Your task to perform on an android device: install app "YouTube Kids" Image 0: 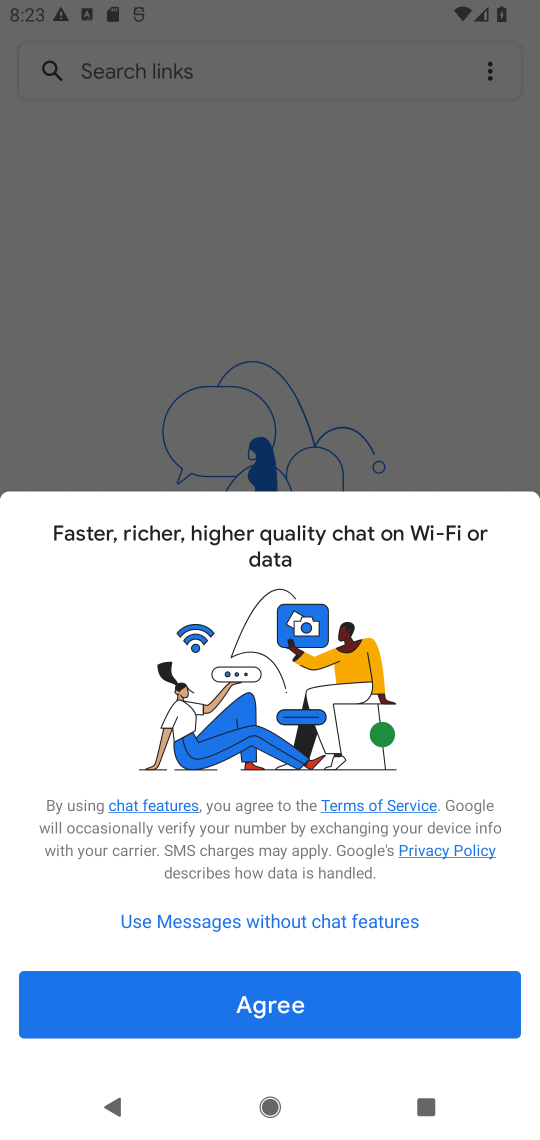
Step 0: press home button
Your task to perform on an android device: install app "YouTube Kids" Image 1: 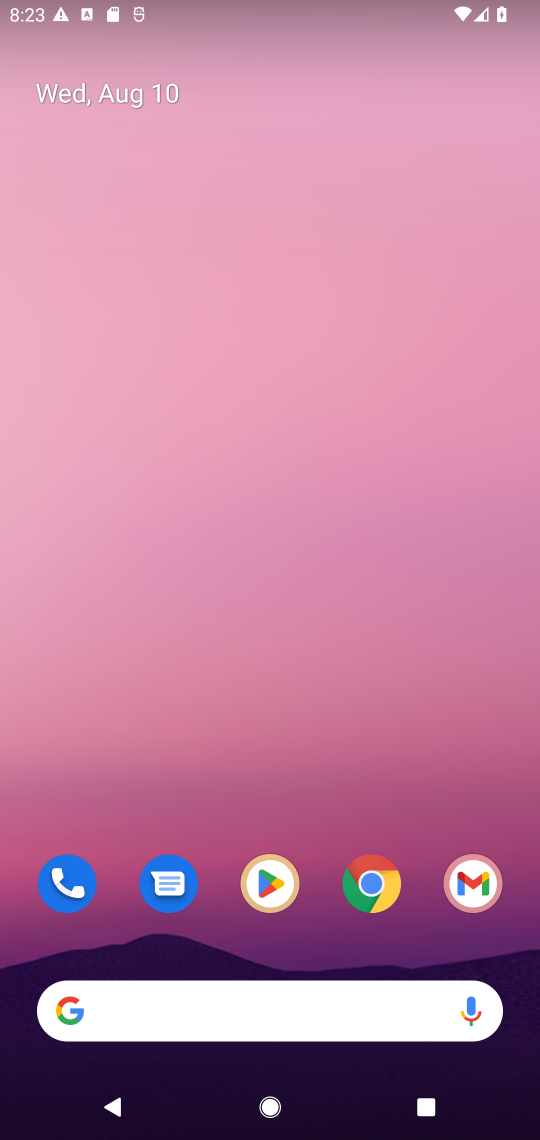
Step 1: drag from (300, 926) to (290, 33)
Your task to perform on an android device: install app "YouTube Kids" Image 2: 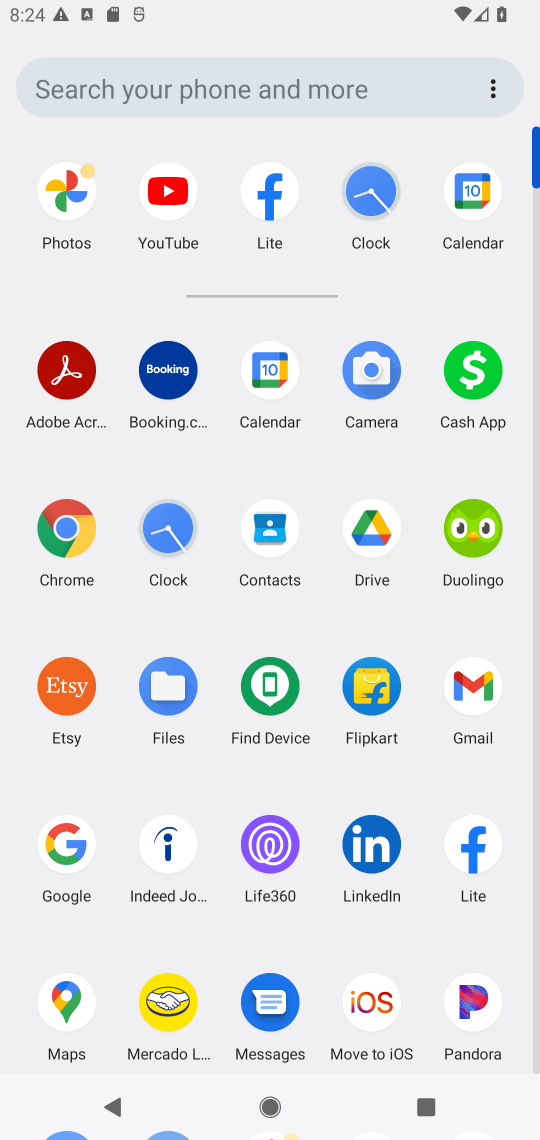
Step 2: drag from (401, 940) to (402, 330)
Your task to perform on an android device: install app "YouTube Kids" Image 3: 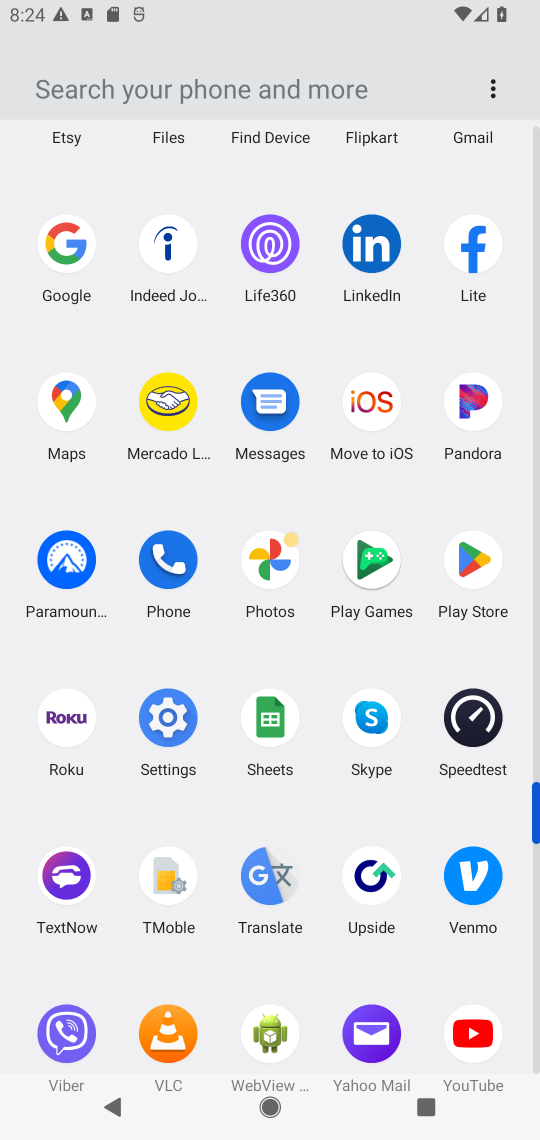
Step 3: press home button
Your task to perform on an android device: install app "YouTube Kids" Image 4: 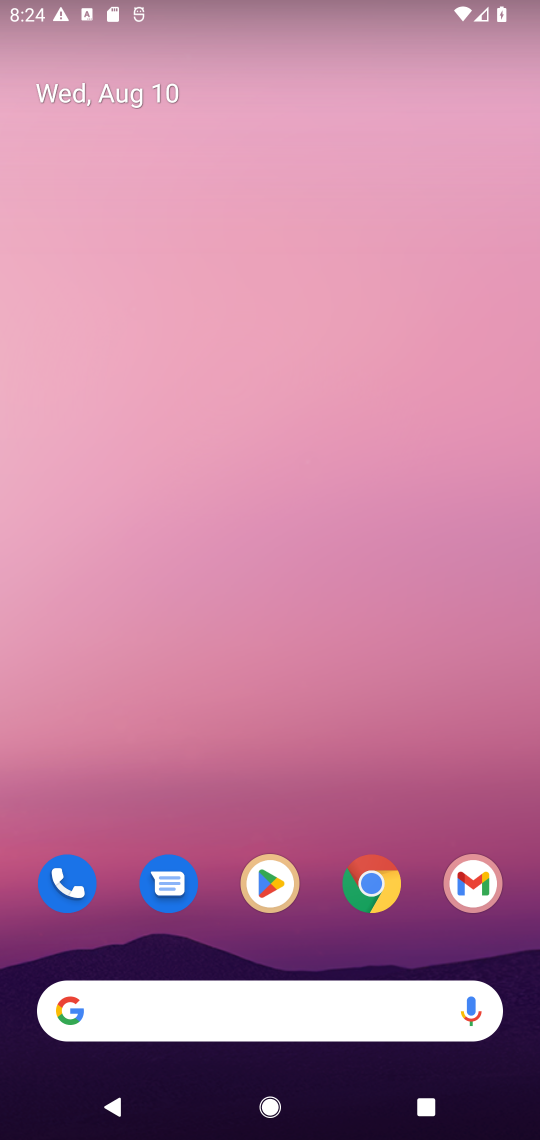
Step 4: drag from (310, 953) to (273, 99)
Your task to perform on an android device: install app "YouTube Kids" Image 5: 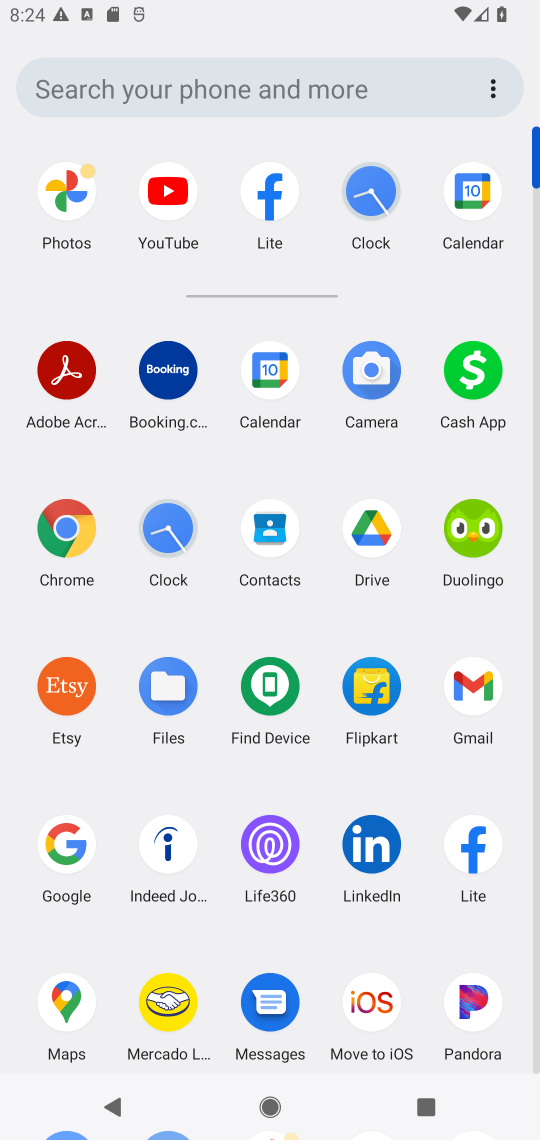
Step 5: drag from (281, 896) to (269, 392)
Your task to perform on an android device: install app "YouTube Kids" Image 6: 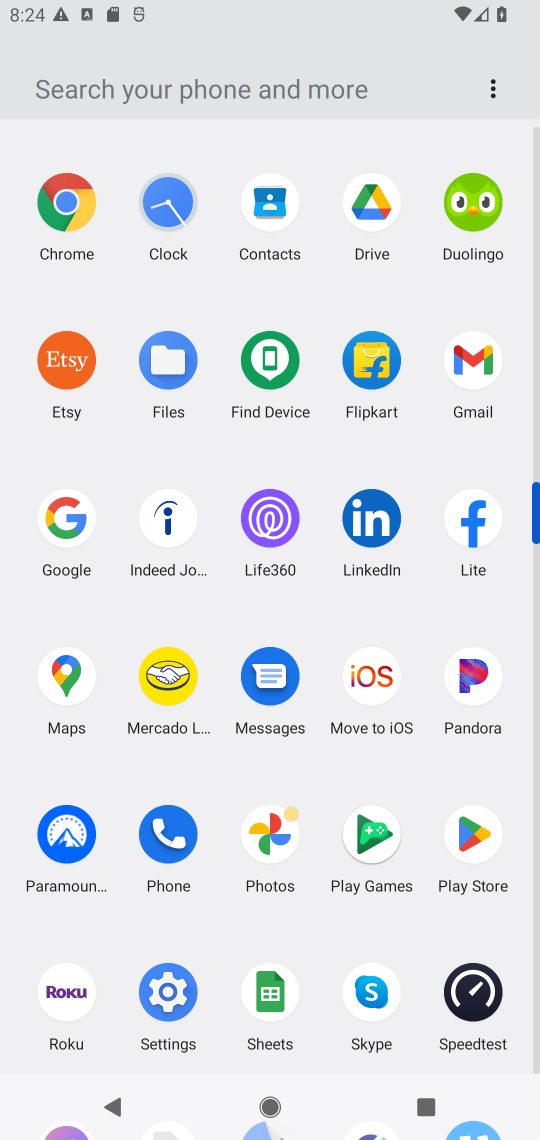
Step 6: click (466, 831)
Your task to perform on an android device: install app "YouTube Kids" Image 7: 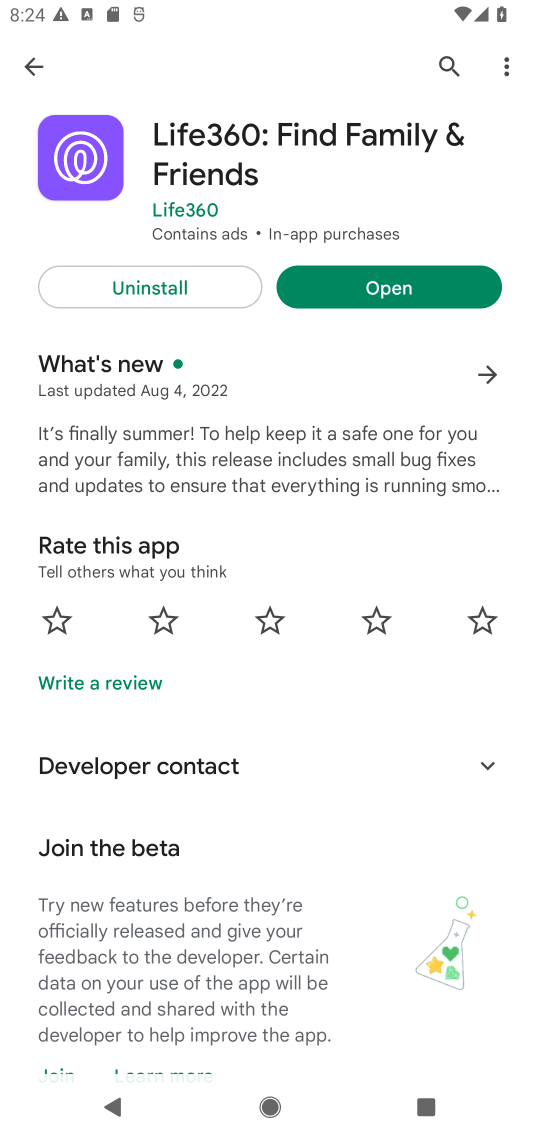
Step 7: click (442, 65)
Your task to perform on an android device: install app "YouTube Kids" Image 8: 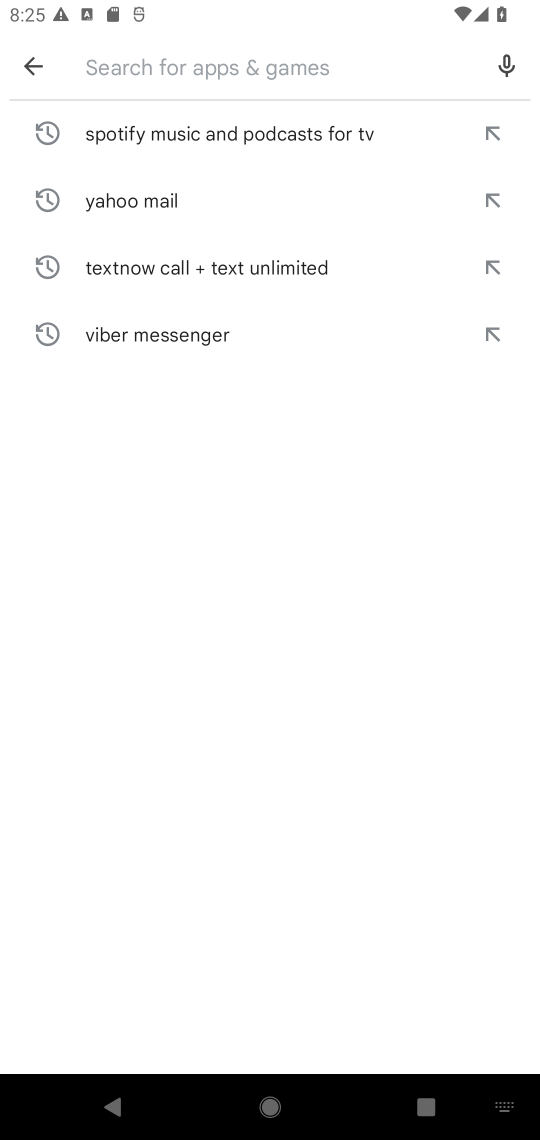
Step 8: type "YouTube Kids"
Your task to perform on an android device: install app "YouTube Kids" Image 9: 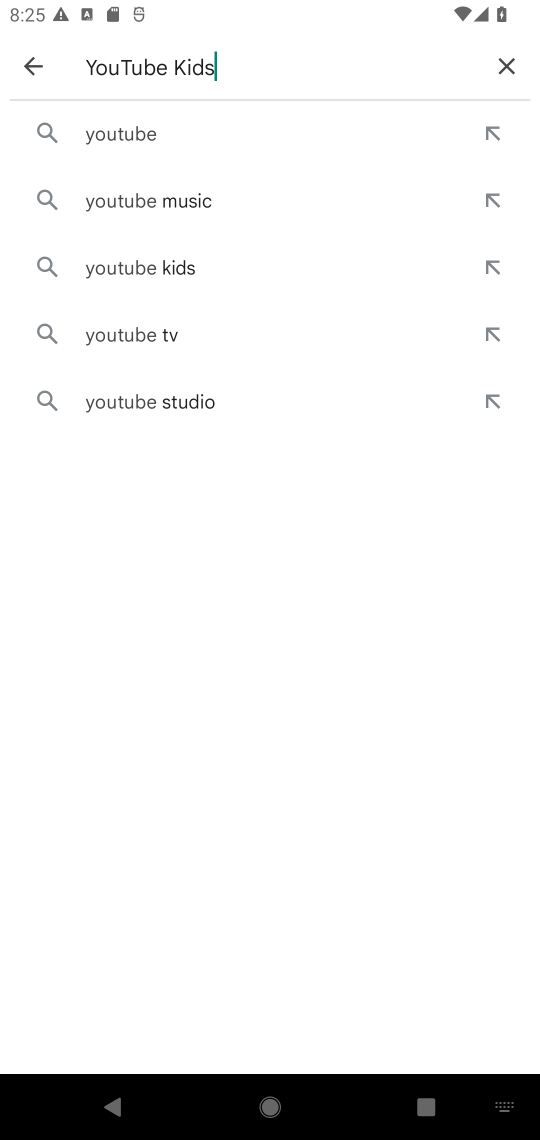
Step 9: type ""
Your task to perform on an android device: install app "YouTube Kids" Image 10: 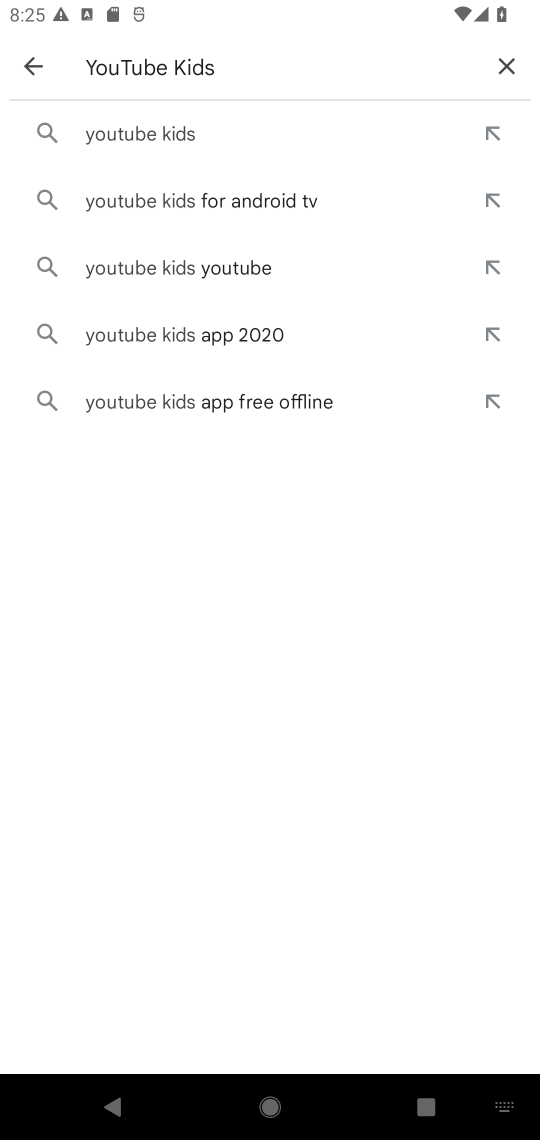
Step 10: click (171, 128)
Your task to perform on an android device: install app "YouTube Kids" Image 11: 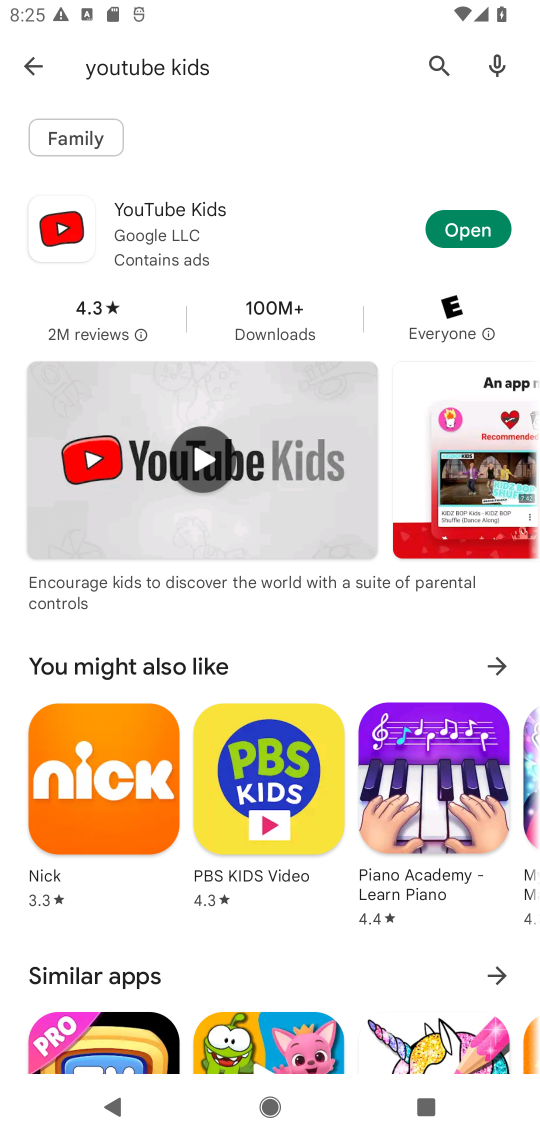
Step 11: task complete